Your task to perform on an android device: Go to notification settings Image 0: 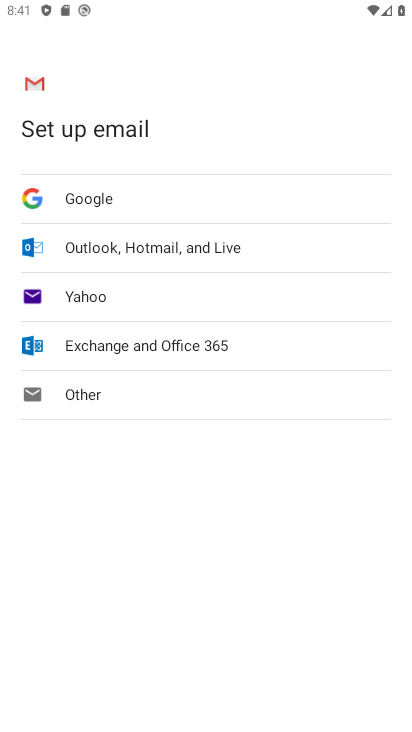
Step 0: press home button
Your task to perform on an android device: Go to notification settings Image 1: 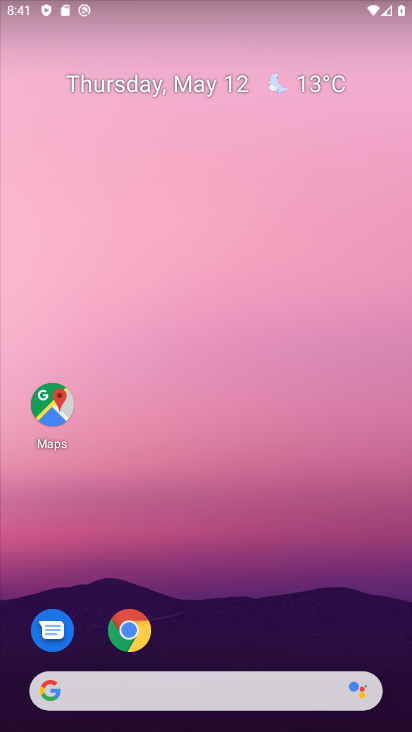
Step 1: drag from (167, 676) to (259, 286)
Your task to perform on an android device: Go to notification settings Image 2: 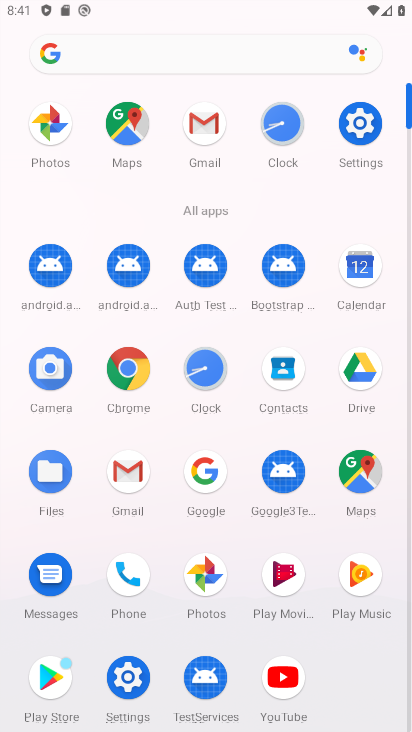
Step 2: click (346, 128)
Your task to perform on an android device: Go to notification settings Image 3: 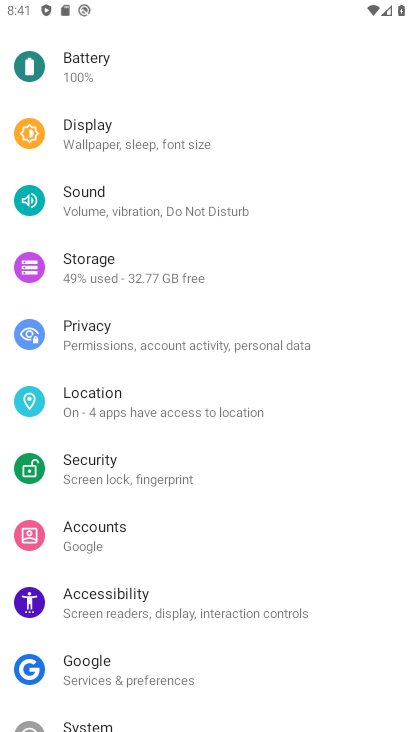
Step 3: drag from (130, 238) to (128, 637)
Your task to perform on an android device: Go to notification settings Image 4: 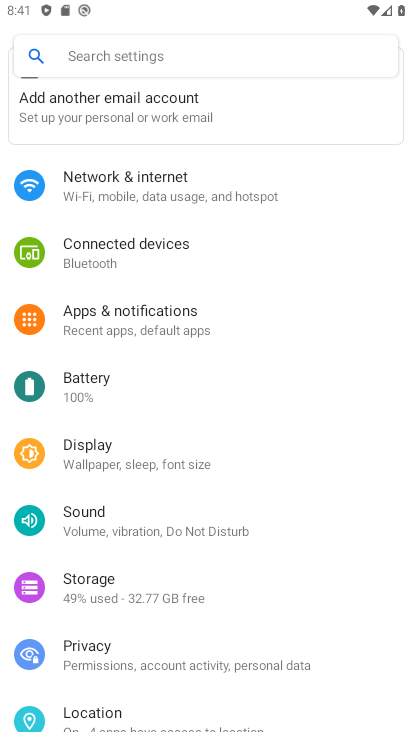
Step 4: click (123, 328)
Your task to perform on an android device: Go to notification settings Image 5: 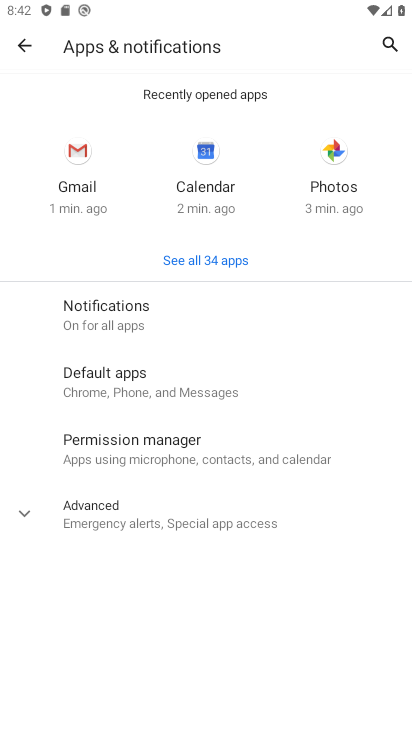
Step 5: task complete